Your task to perform on an android device: Open settings on Google Maps Image 0: 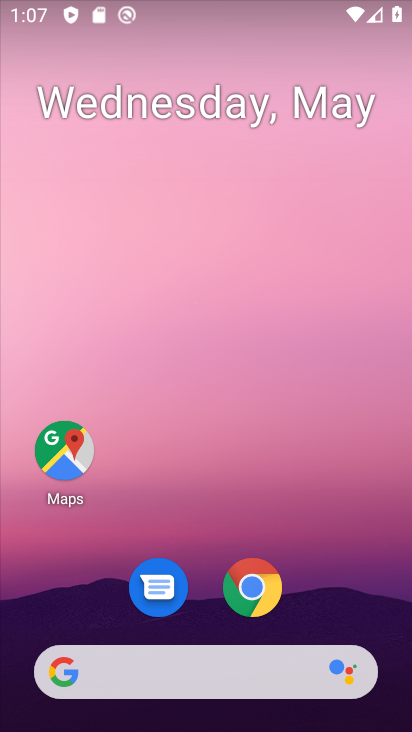
Step 0: click (67, 453)
Your task to perform on an android device: Open settings on Google Maps Image 1: 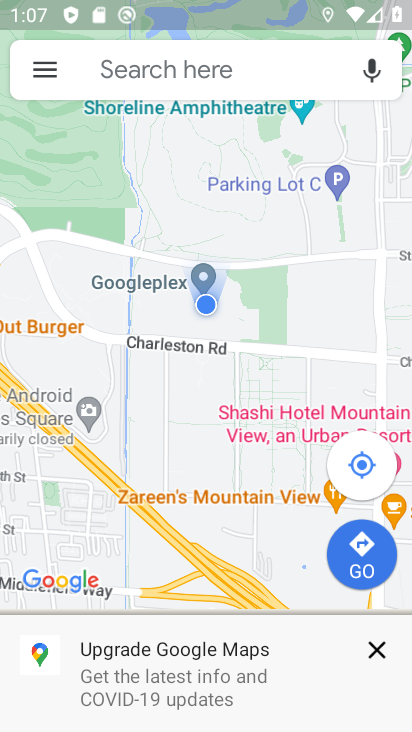
Step 1: task complete